Your task to perform on an android device: Open privacy settings Image 0: 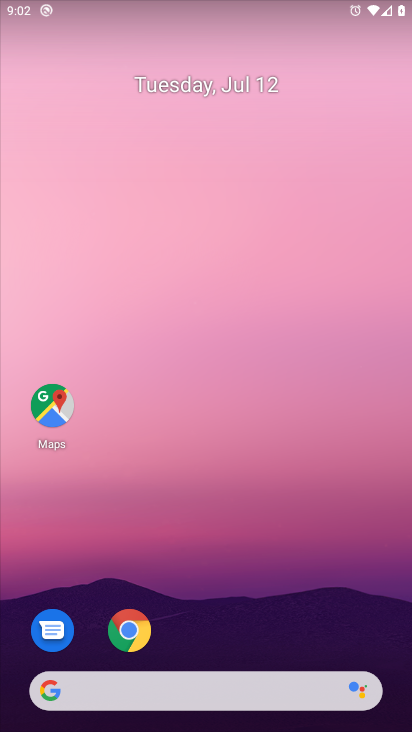
Step 0: press home button
Your task to perform on an android device: Open privacy settings Image 1: 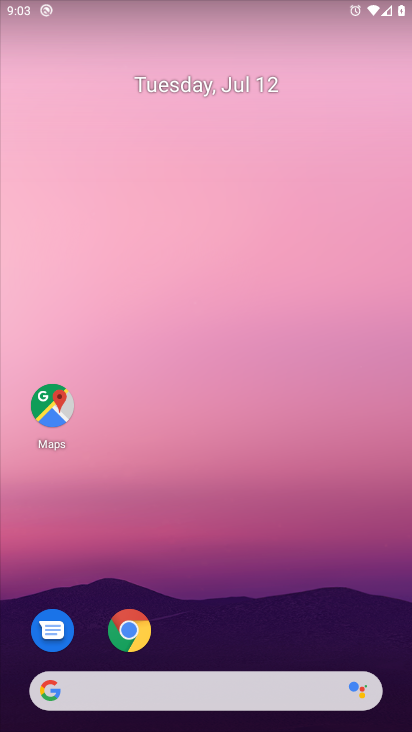
Step 1: drag from (237, 614) to (275, 36)
Your task to perform on an android device: Open privacy settings Image 2: 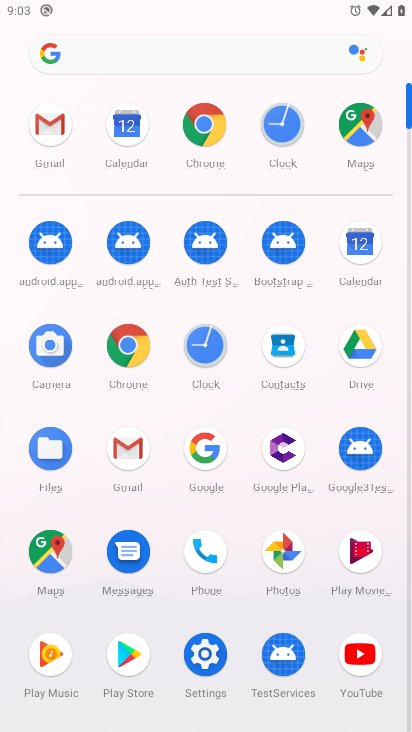
Step 2: click (208, 665)
Your task to perform on an android device: Open privacy settings Image 3: 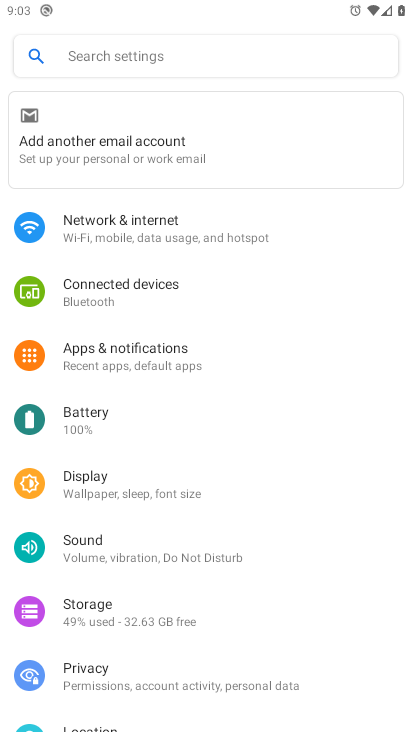
Step 3: click (97, 680)
Your task to perform on an android device: Open privacy settings Image 4: 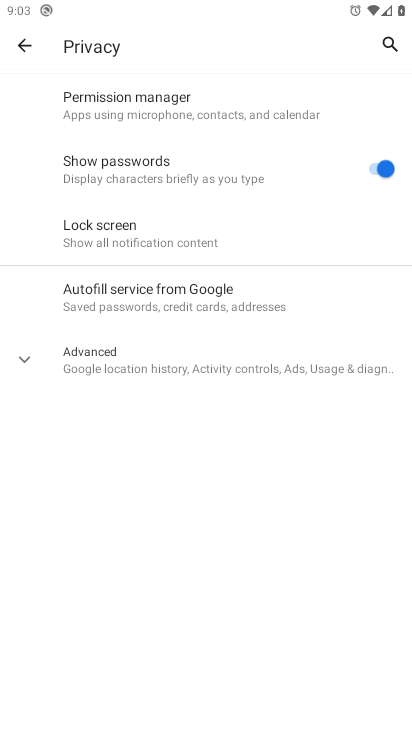
Step 4: task complete